Your task to perform on an android device: refresh tabs in the chrome app Image 0: 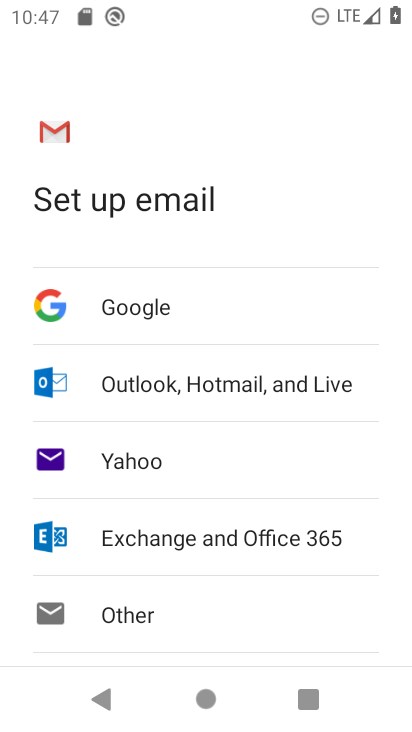
Step 0: press home button
Your task to perform on an android device: refresh tabs in the chrome app Image 1: 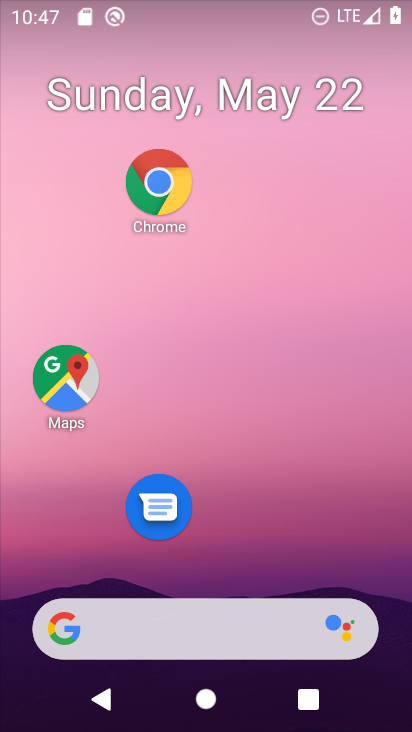
Step 1: click (164, 197)
Your task to perform on an android device: refresh tabs in the chrome app Image 2: 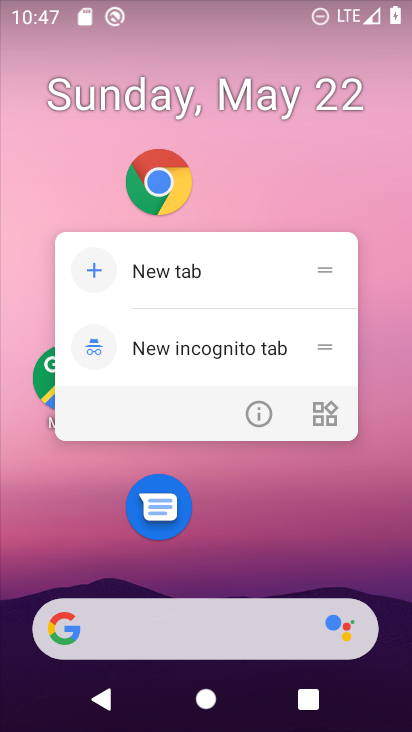
Step 2: click (164, 197)
Your task to perform on an android device: refresh tabs in the chrome app Image 3: 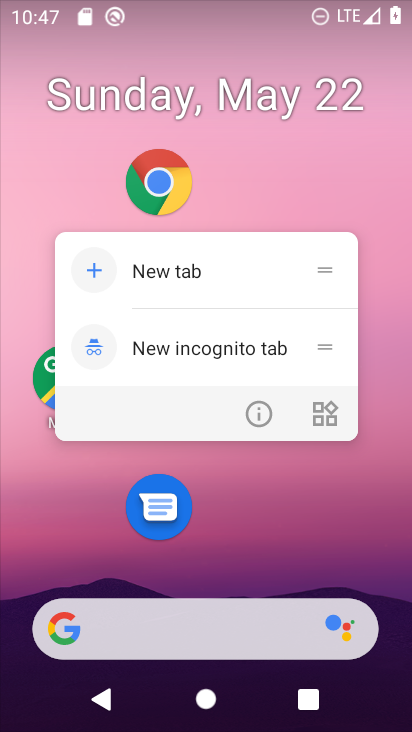
Step 3: click (164, 197)
Your task to perform on an android device: refresh tabs in the chrome app Image 4: 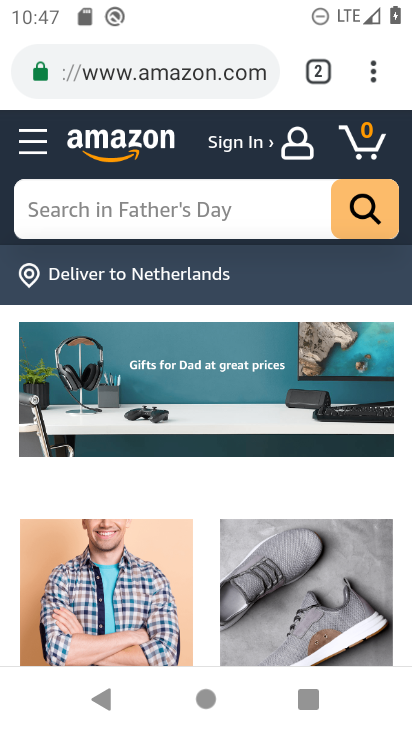
Step 4: click (370, 65)
Your task to perform on an android device: refresh tabs in the chrome app Image 5: 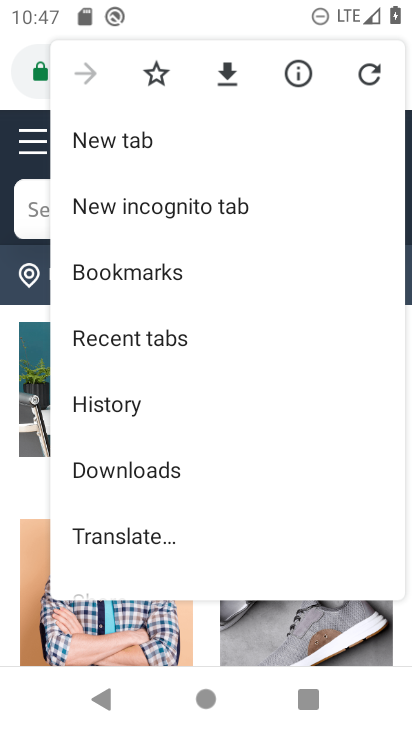
Step 5: click (368, 79)
Your task to perform on an android device: refresh tabs in the chrome app Image 6: 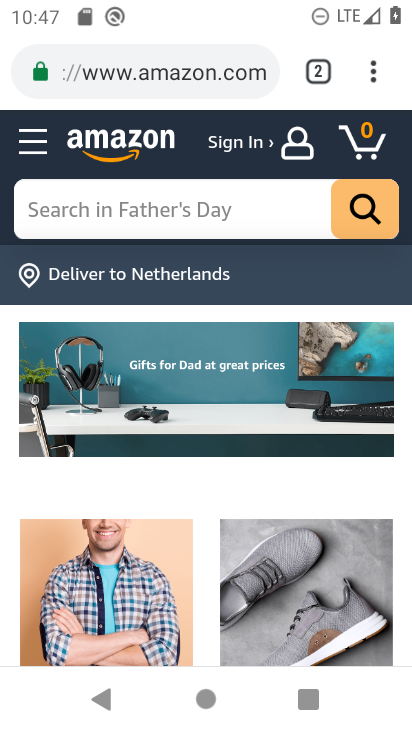
Step 6: task complete